Your task to perform on an android device: open chrome and create a bookmark for the current page Image 0: 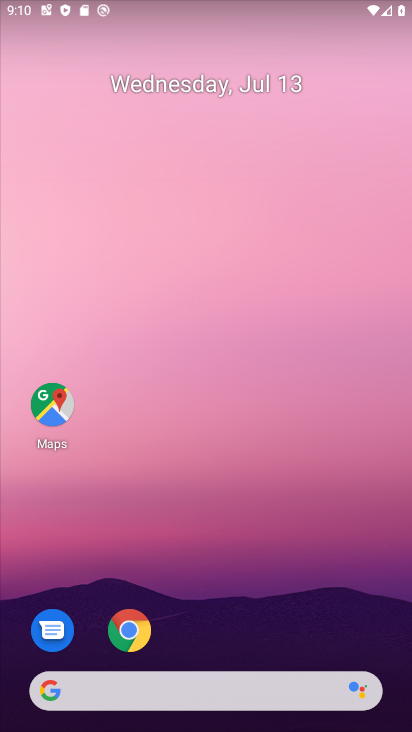
Step 0: click (139, 634)
Your task to perform on an android device: open chrome and create a bookmark for the current page Image 1: 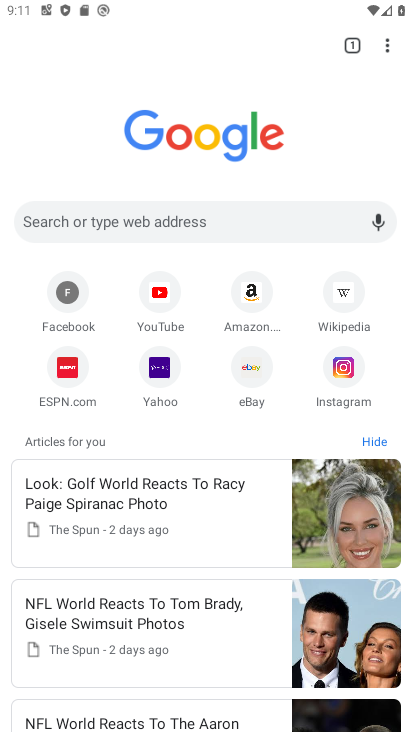
Step 1: click (384, 44)
Your task to perform on an android device: open chrome and create a bookmark for the current page Image 2: 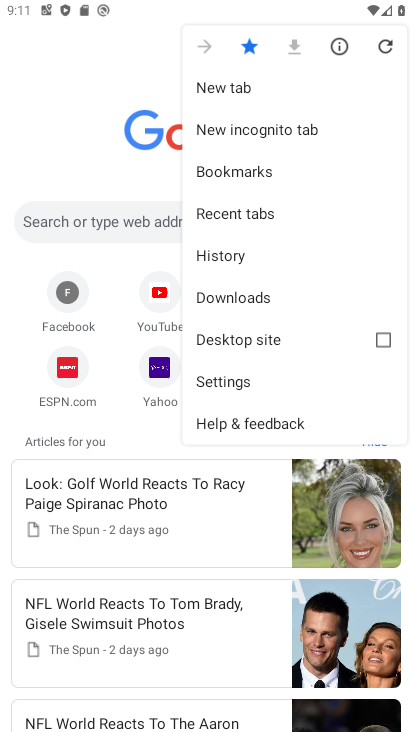
Step 2: task complete